Your task to perform on an android device: check android version Image 0: 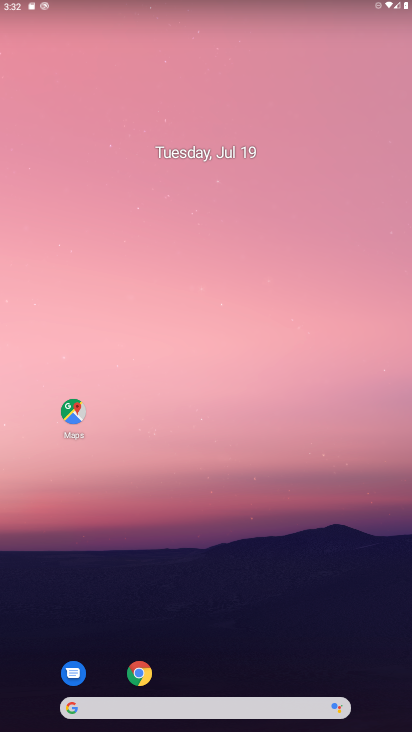
Step 0: drag from (241, 645) to (263, 194)
Your task to perform on an android device: check android version Image 1: 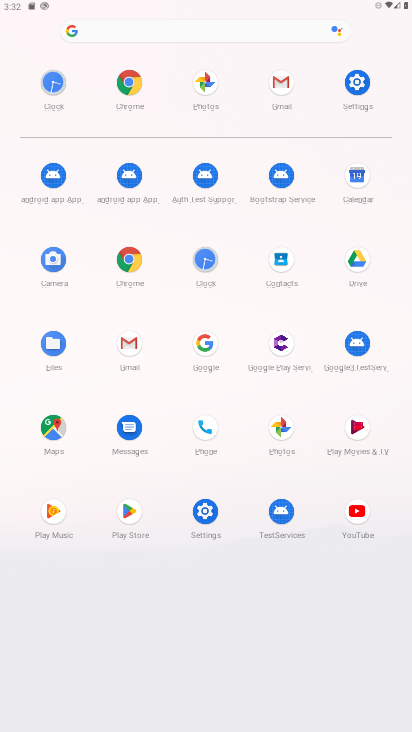
Step 1: click (203, 524)
Your task to perform on an android device: check android version Image 2: 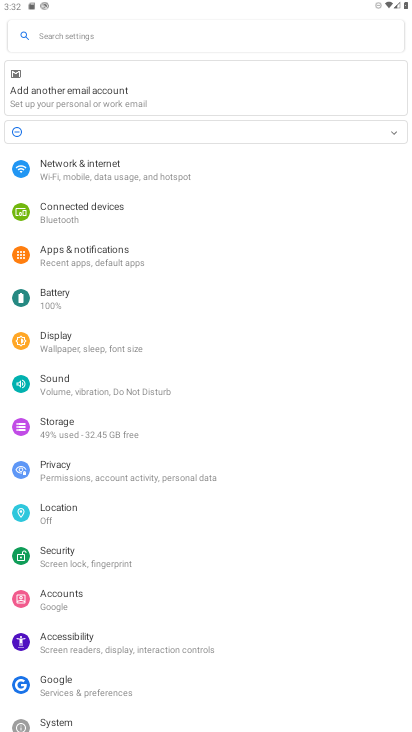
Step 2: drag from (114, 568) to (169, 135)
Your task to perform on an android device: check android version Image 3: 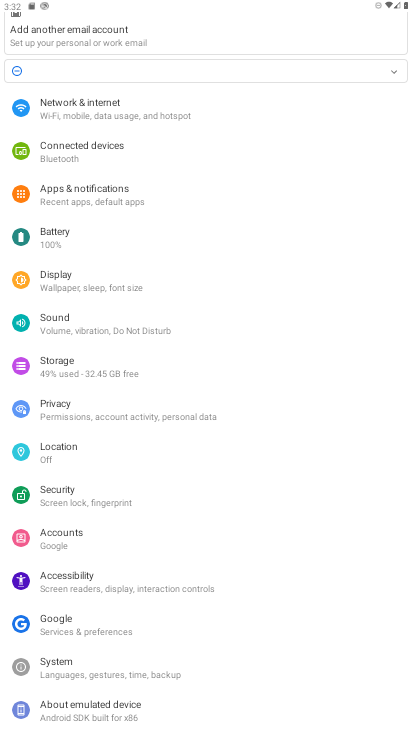
Step 3: drag from (129, 658) to (174, 215)
Your task to perform on an android device: check android version Image 4: 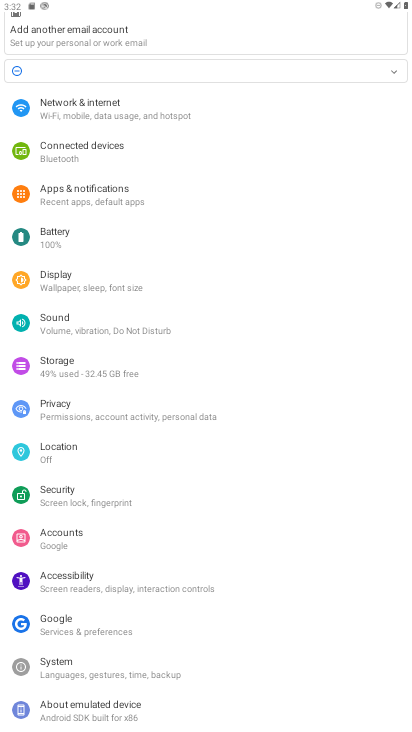
Step 4: click (110, 707)
Your task to perform on an android device: check android version Image 5: 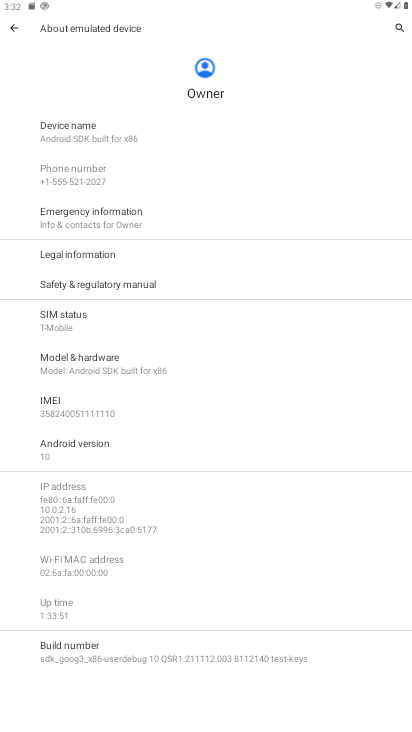
Step 5: click (64, 450)
Your task to perform on an android device: check android version Image 6: 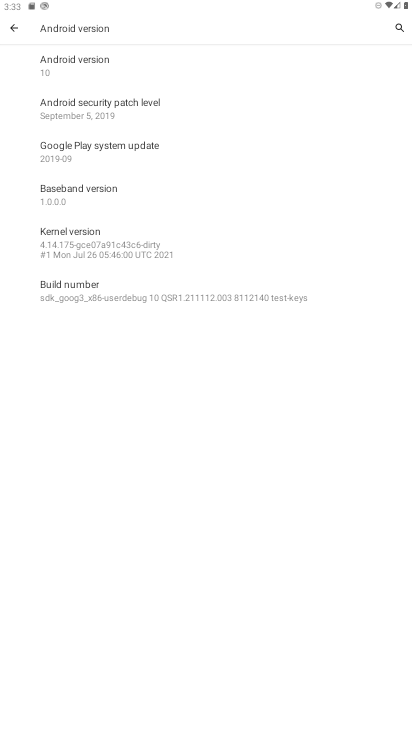
Step 6: task complete